Your task to perform on an android device: What's the weather going to be this weekend? Image 0: 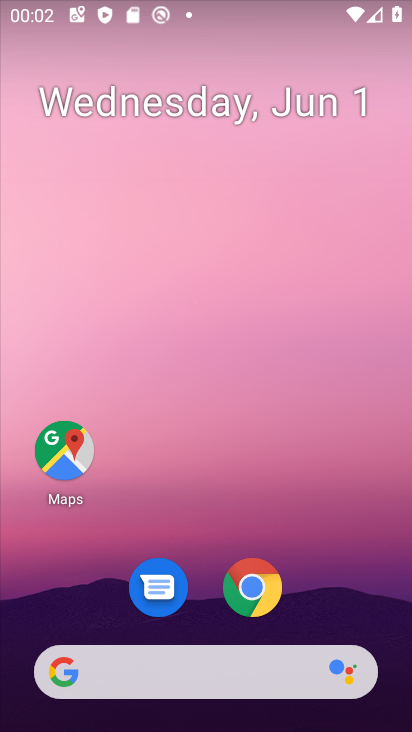
Step 0: click (170, 667)
Your task to perform on an android device: What's the weather going to be this weekend? Image 1: 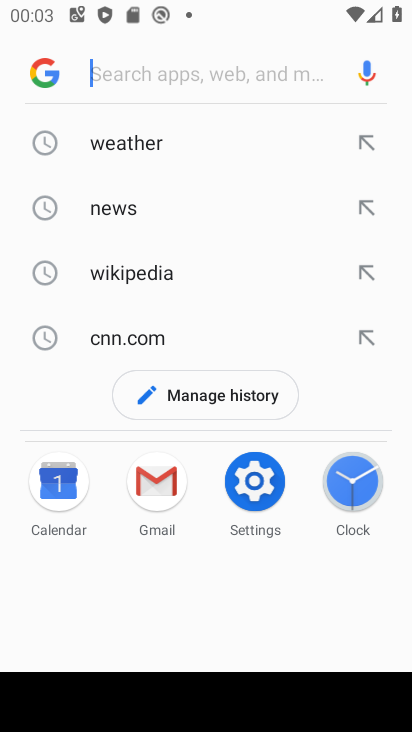
Step 1: type "what's the weather going to be this weekend"
Your task to perform on an android device: What's the weather going to be this weekend? Image 2: 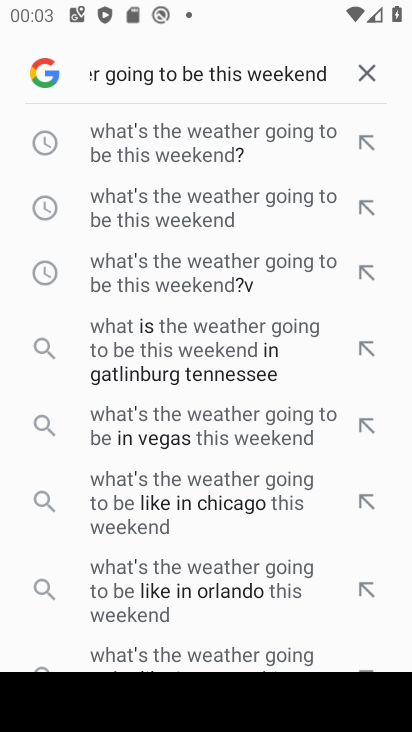
Step 2: click (200, 168)
Your task to perform on an android device: What's the weather going to be this weekend? Image 3: 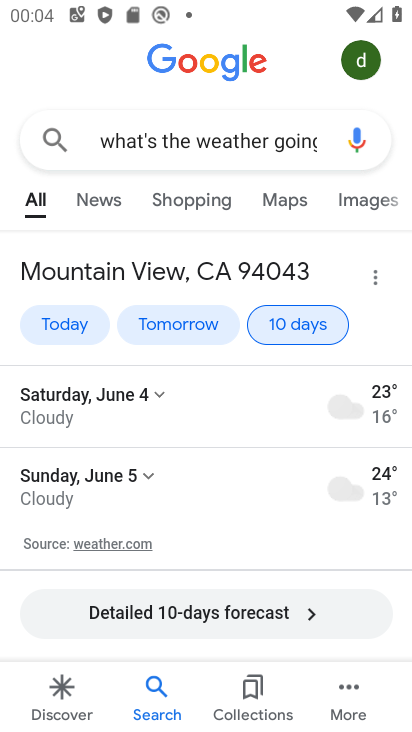
Step 3: task complete